Your task to perform on an android device: Go to battery settings Image 0: 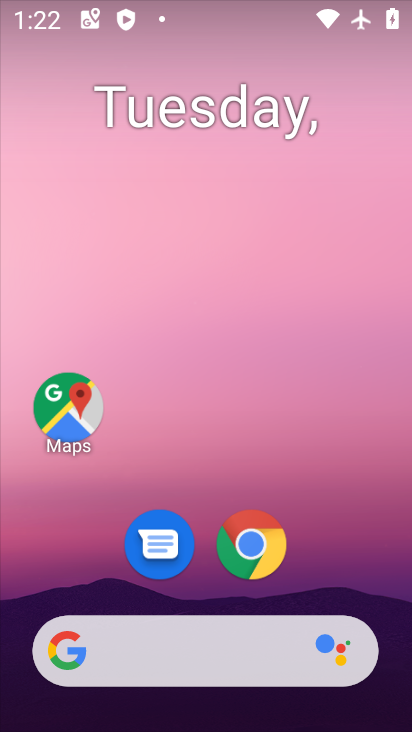
Step 0: drag from (384, 610) to (299, 133)
Your task to perform on an android device: Go to battery settings Image 1: 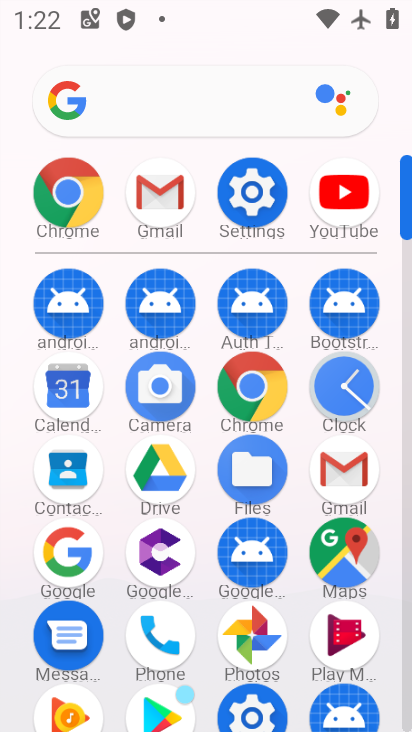
Step 1: click (404, 698)
Your task to perform on an android device: Go to battery settings Image 2: 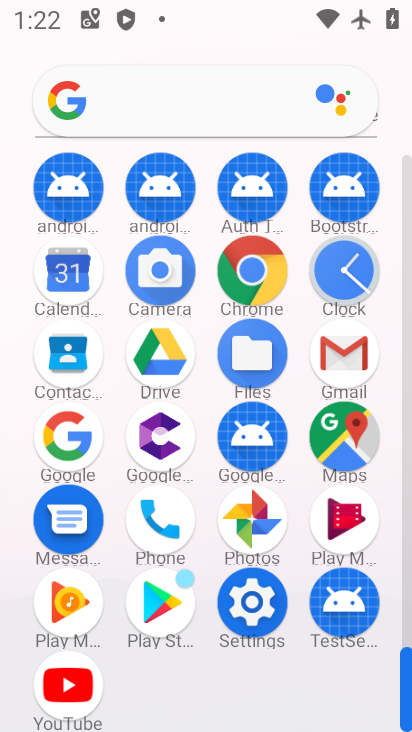
Step 2: click (251, 604)
Your task to perform on an android device: Go to battery settings Image 3: 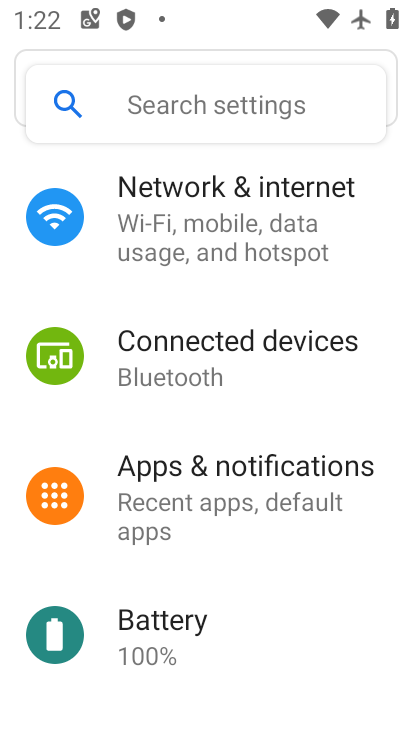
Step 3: click (179, 628)
Your task to perform on an android device: Go to battery settings Image 4: 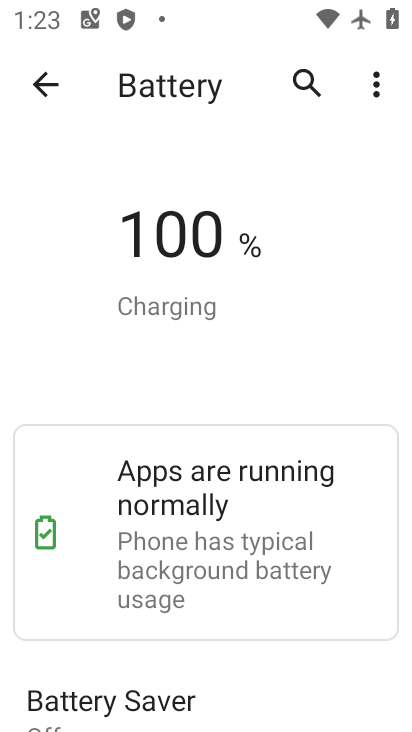
Step 4: task complete